Your task to perform on an android device: install app "Adobe Acrobat Reader: Edit PDF" Image 0: 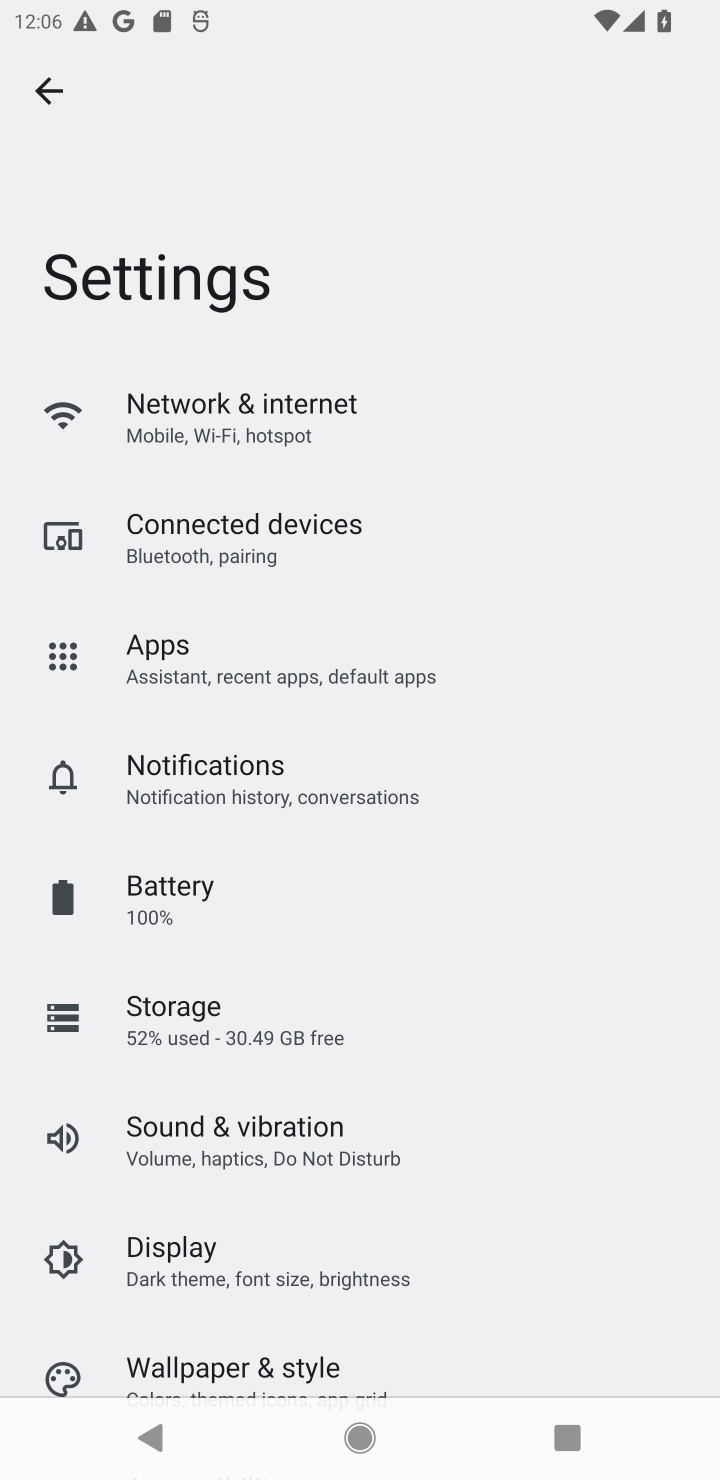
Step 0: press home button
Your task to perform on an android device: install app "Adobe Acrobat Reader: Edit PDF" Image 1: 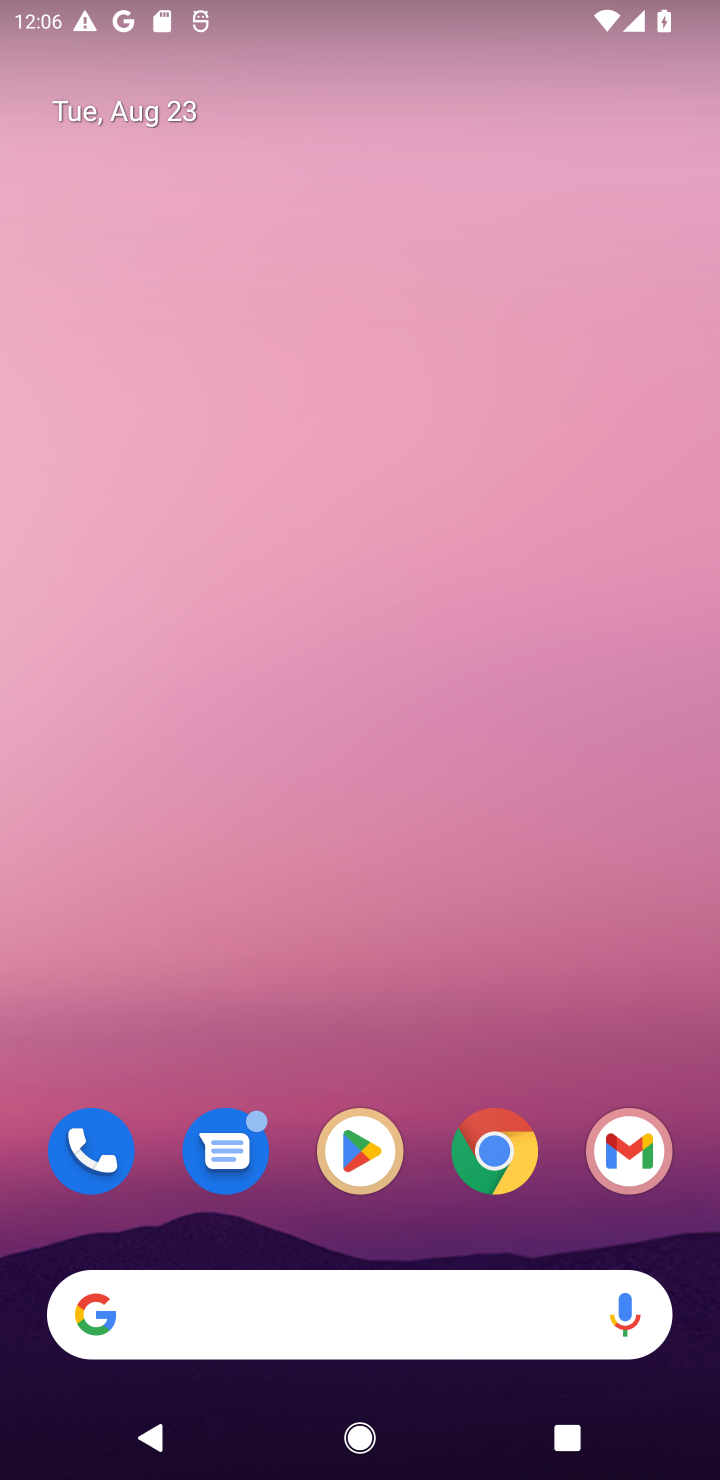
Step 1: click (372, 1131)
Your task to perform on an android device: install app "Adobe Acrobat Reader: Edit PDF" Image 2: 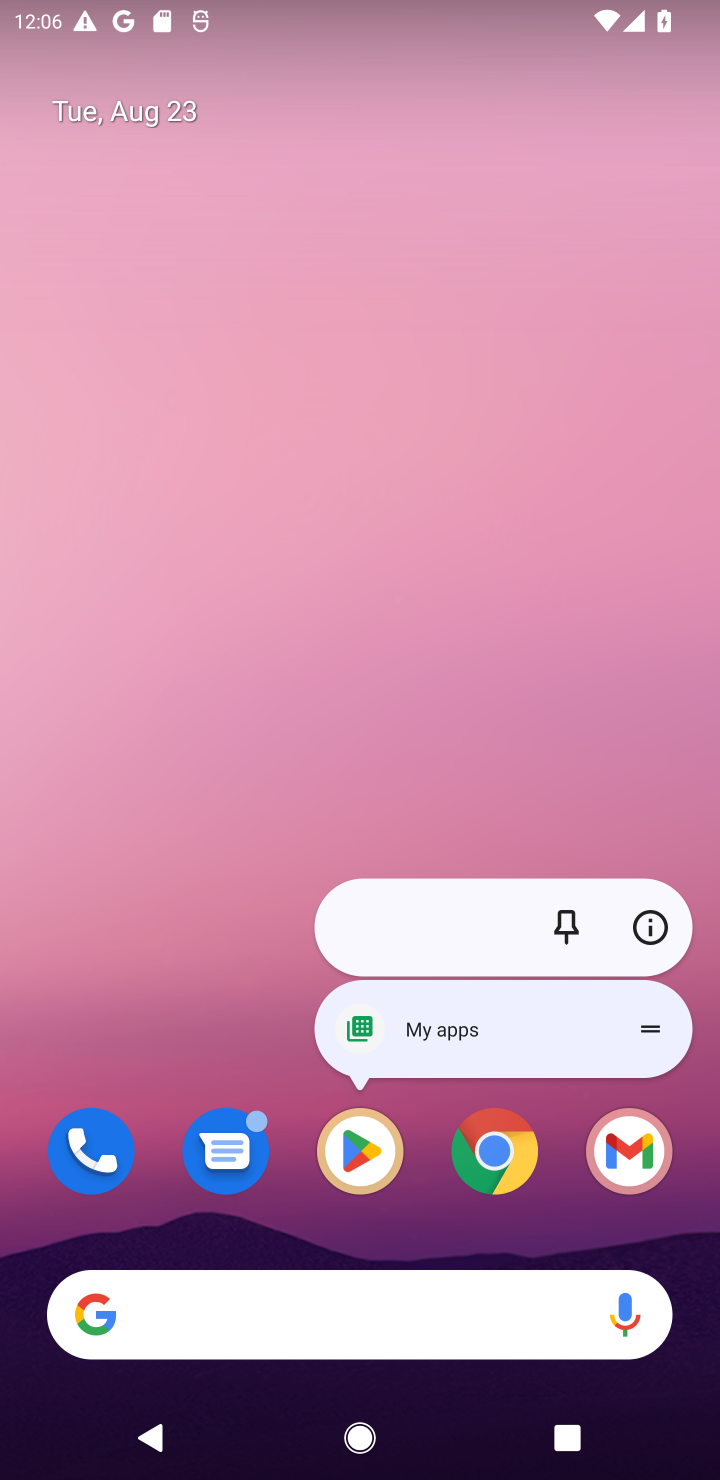
Step 2: click (372, 1131)
Your task to perform on an android device: install app "Adobe Acrobat Reader: Edit PDF" Image 3: 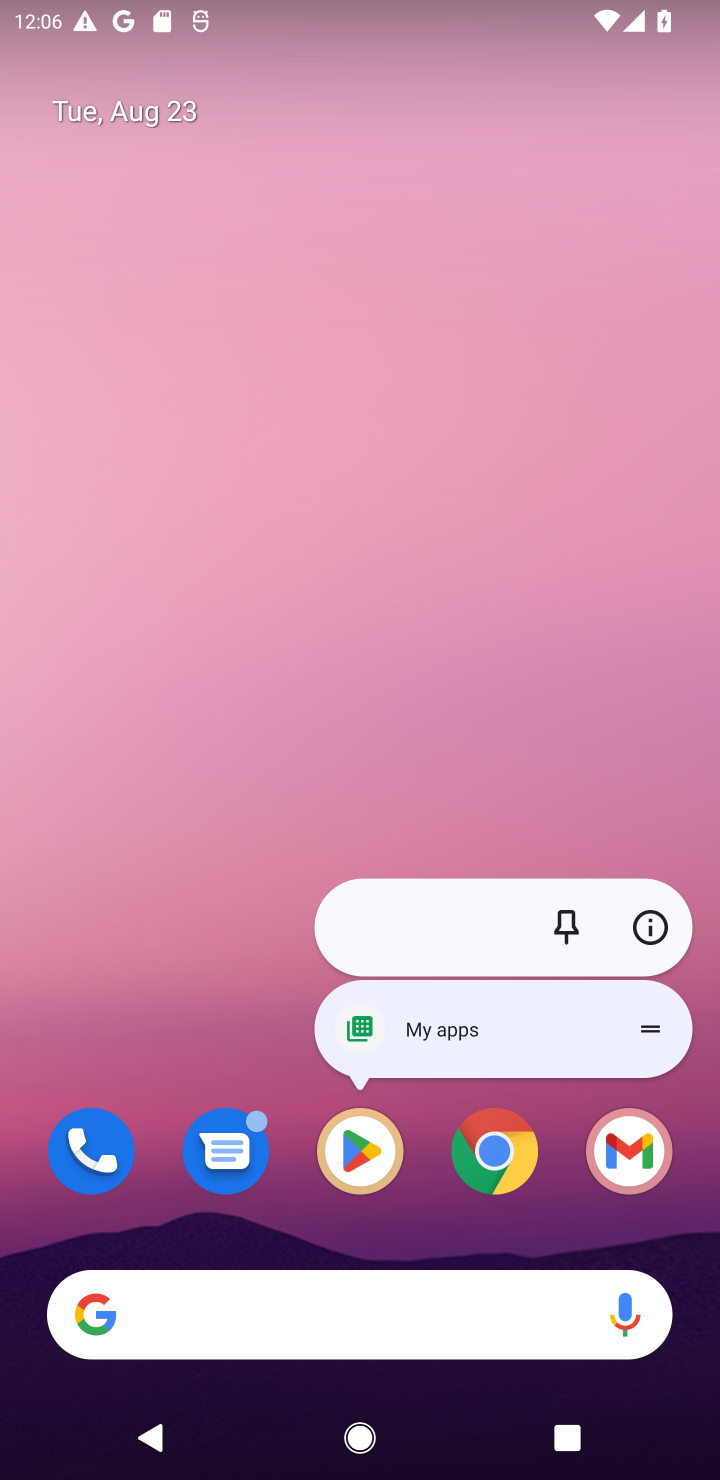
Step 3: click (360, 1159)
Your task to perform on an android device: install app "Adobe Acrobat Reader: Edit PDF" Image 4: 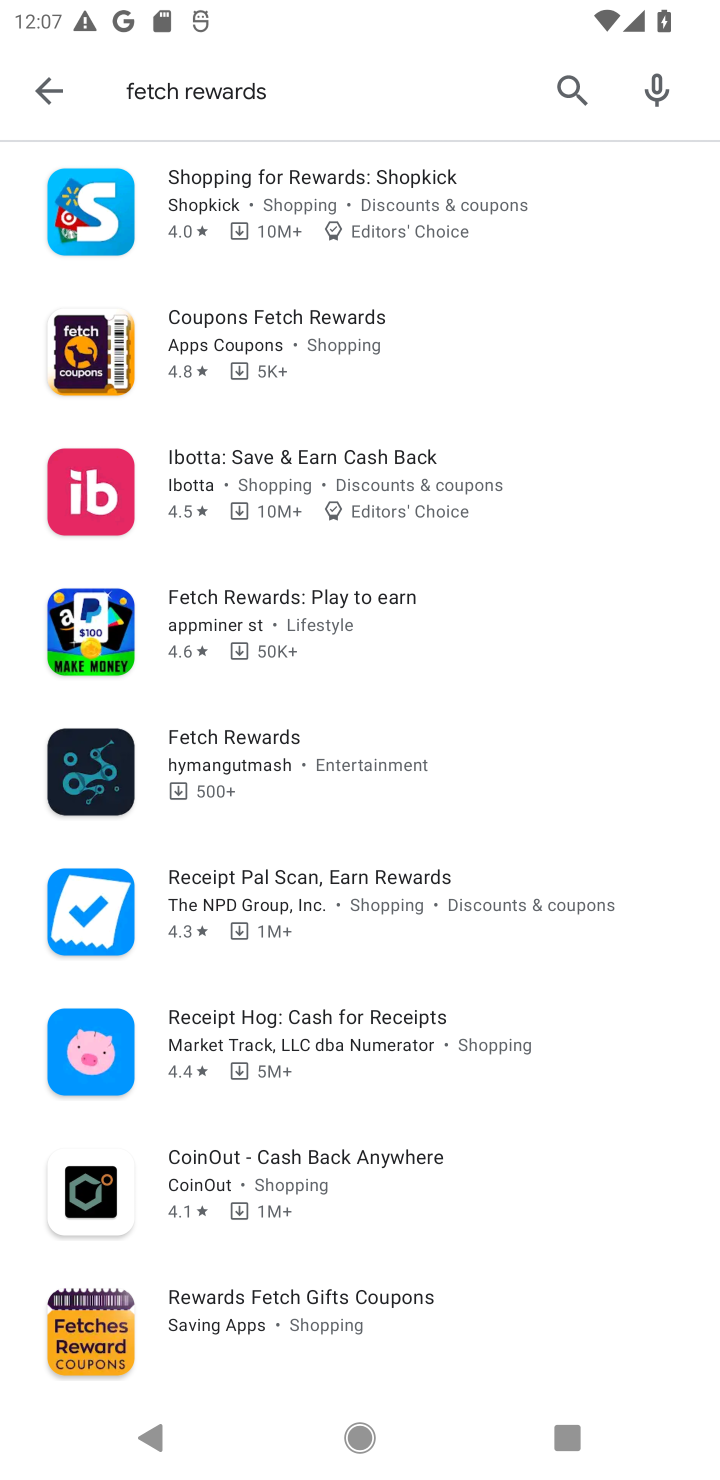
Step 4: click (578, 88)
Your task to perform on an android device: install app "Adobe Acrobat Reader: Edit PDF" Image 5: 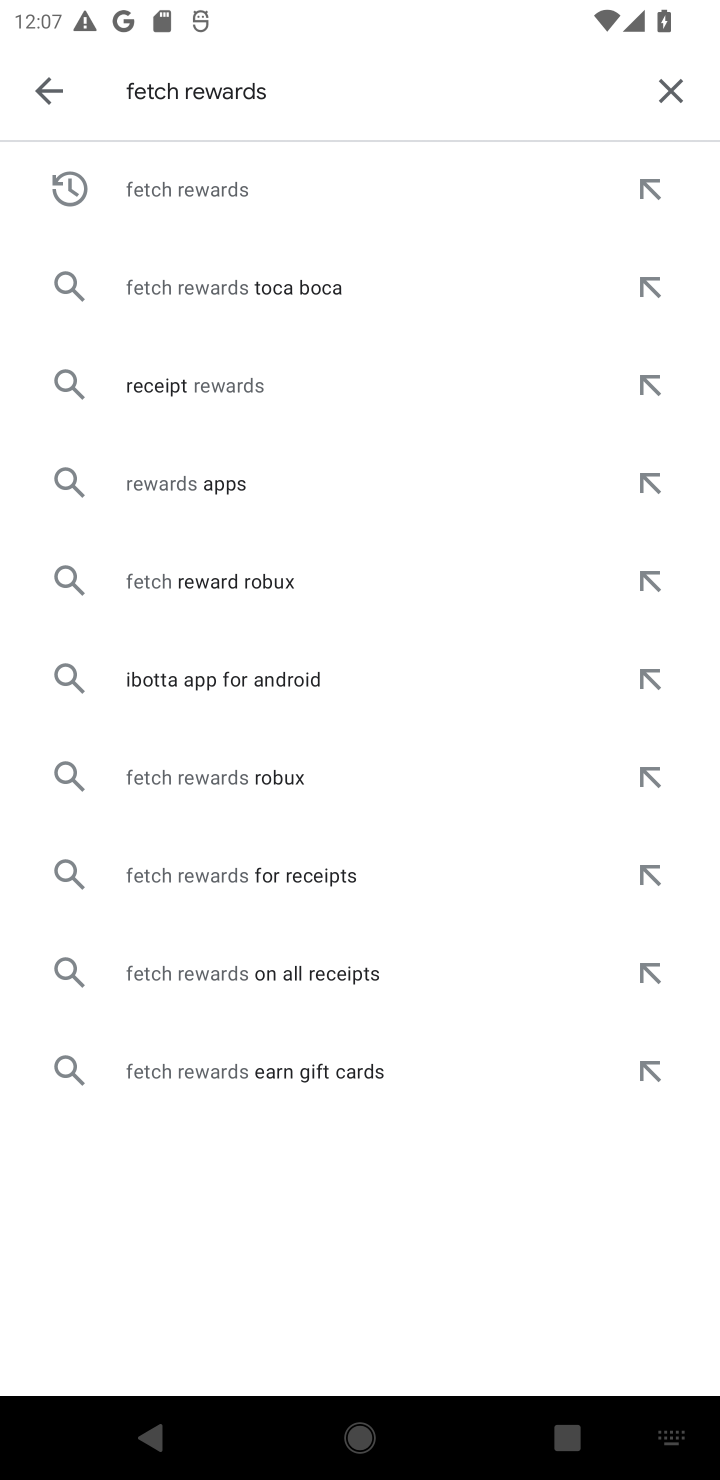
Step 5: click (656, 83)
Your task to perform on an android device: install app "Adobe Acrobat Reader: Edit PDF" Image 6: 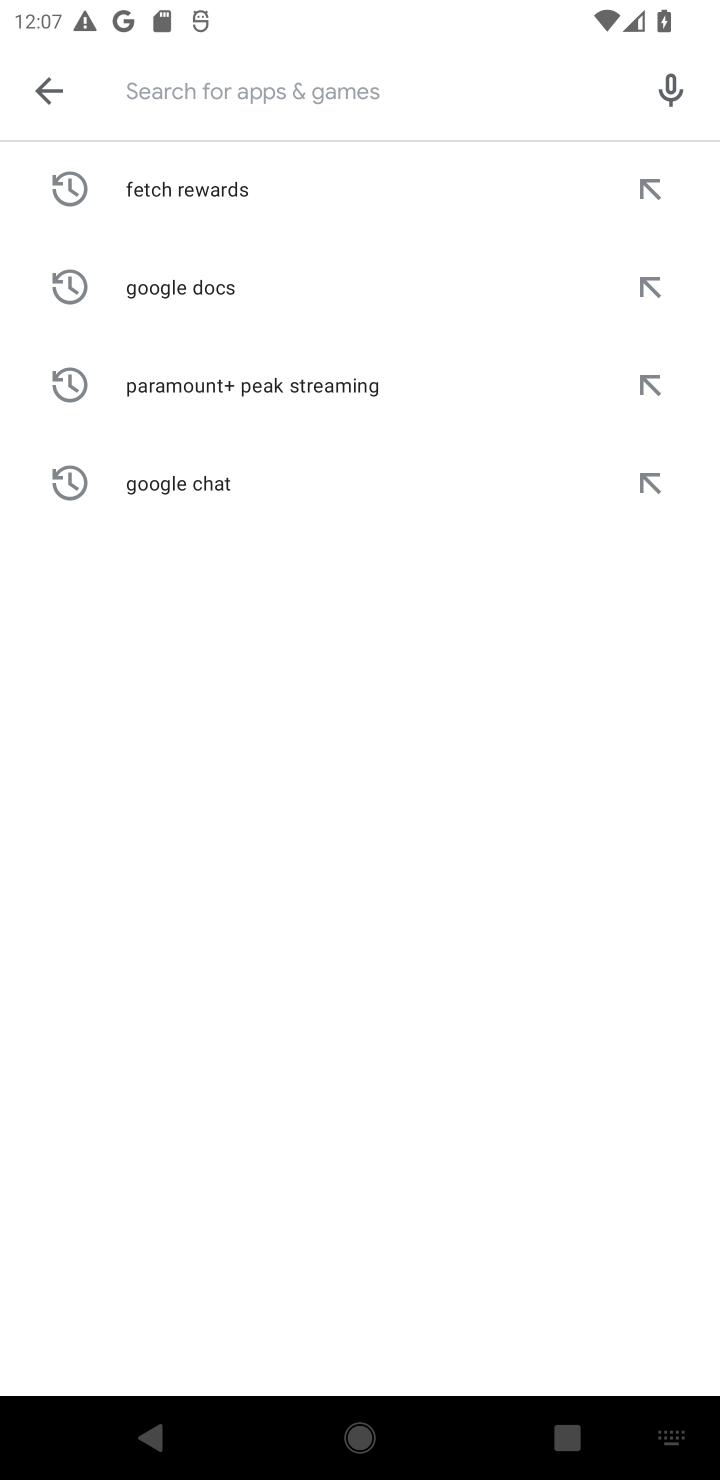
Step 6: type "Adobe Acrobat Reade"
Your task to perform on an android device: install app "Adobe Acrobat Reader: Edit PDF" Image 7: 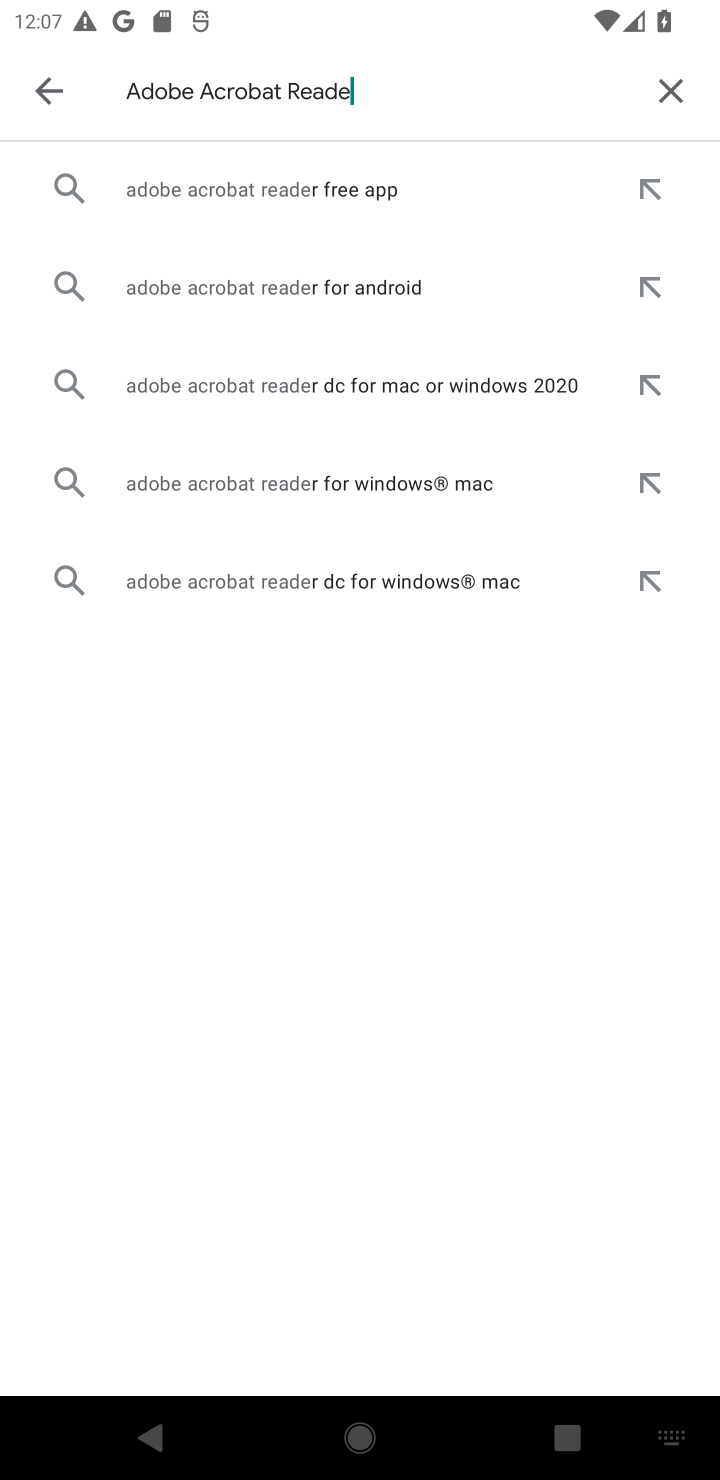
Step 7: click (420, 177)
Your task to perform on an android device: install app "Adobe Acrobat Reader: Edit PDF" Image 8: 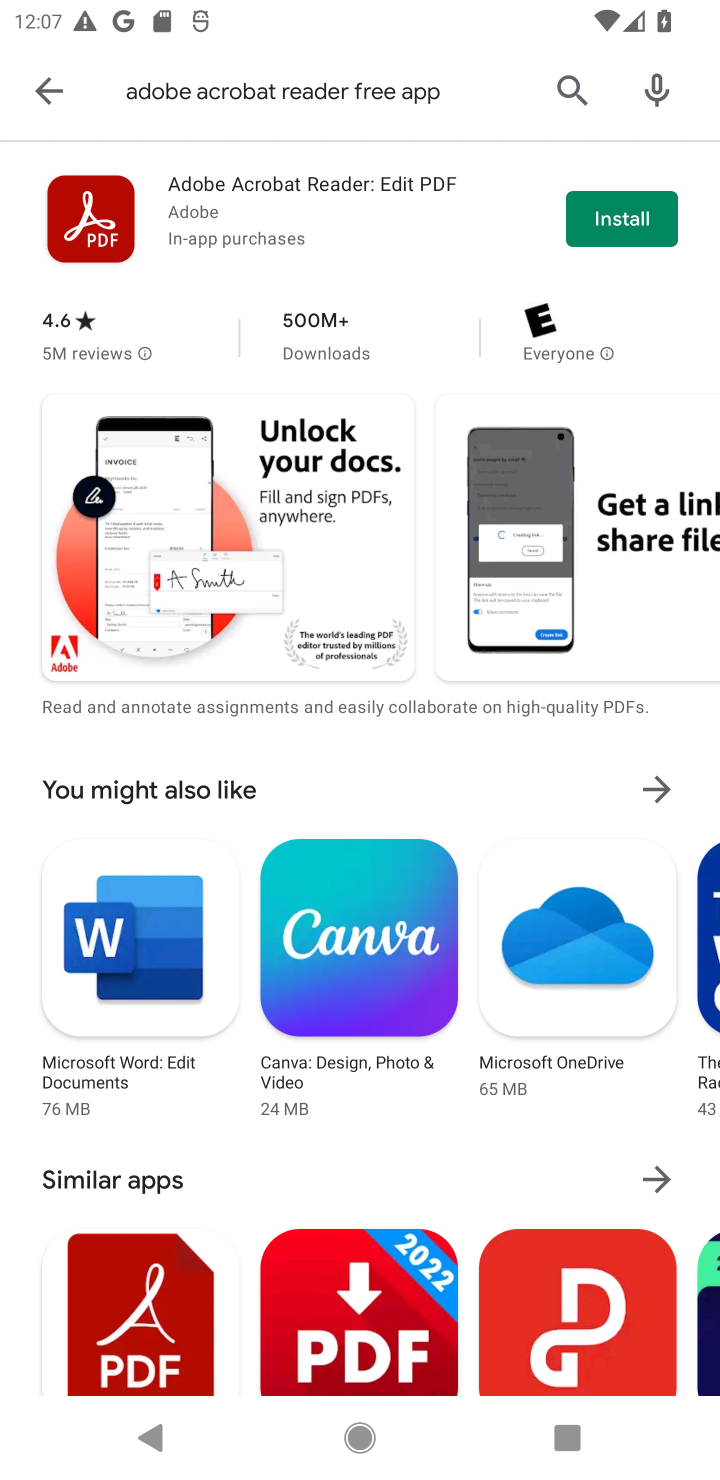
Step 8: click (618, 208)
Your task to perform on an android device: install app "Adobe Acrobat Reader: Edit PDF" Image 9: 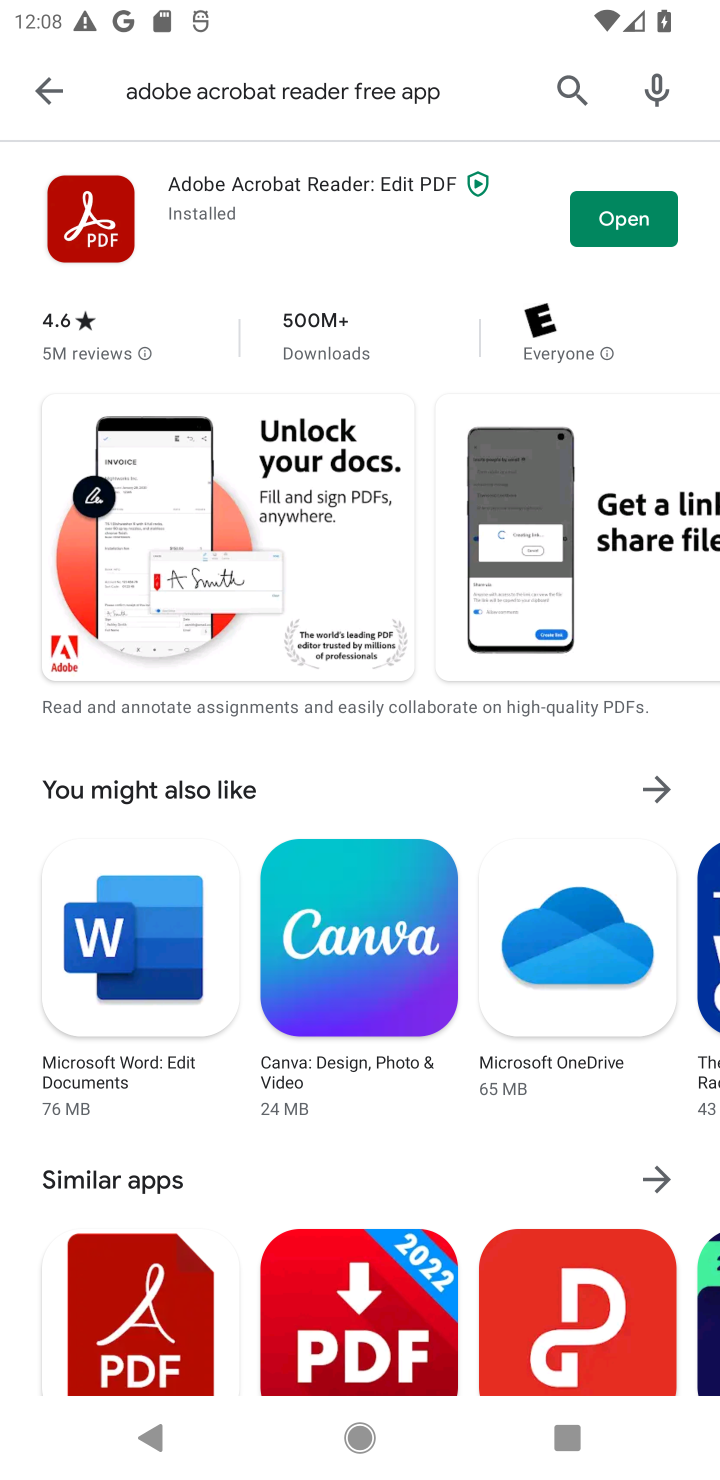
Step 9: task complete